Your task to perform on an android device: change your default location settings in chrome Image 0: 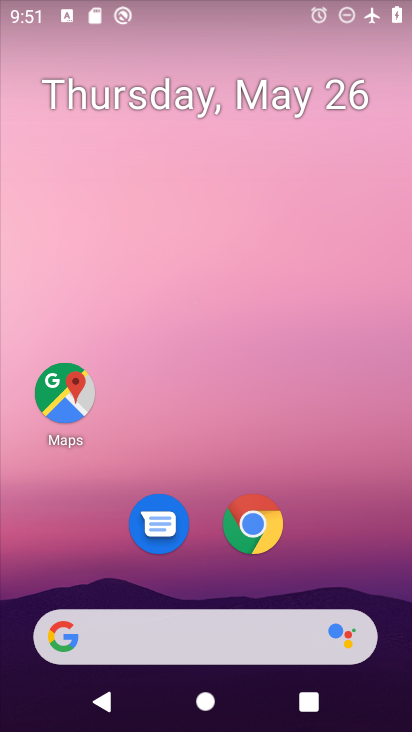
Step 0: click (256, 525)
Your task to perform on an android device: change your default location settings in chrome Image 1: 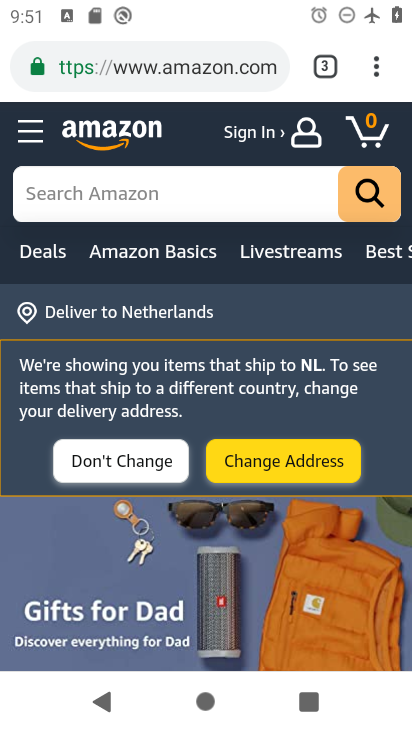
Step 1: click (376, 59)
Your task to perform on an android device: change your default location settings in chrome Image 2: 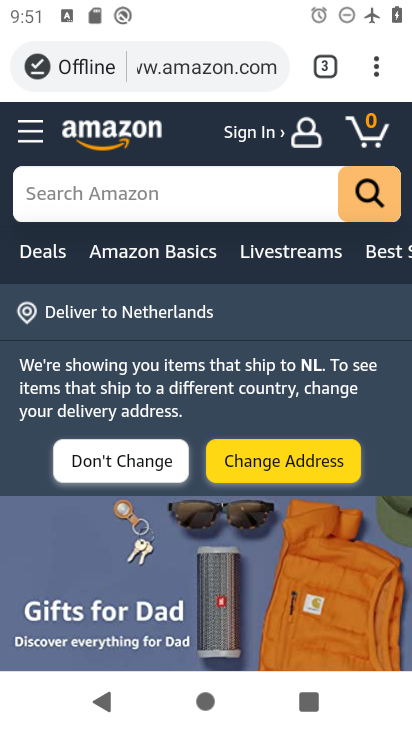
Step 2: click (374, 62)
Your task to perform on an android device: change your default location settings in chrome Image 3: 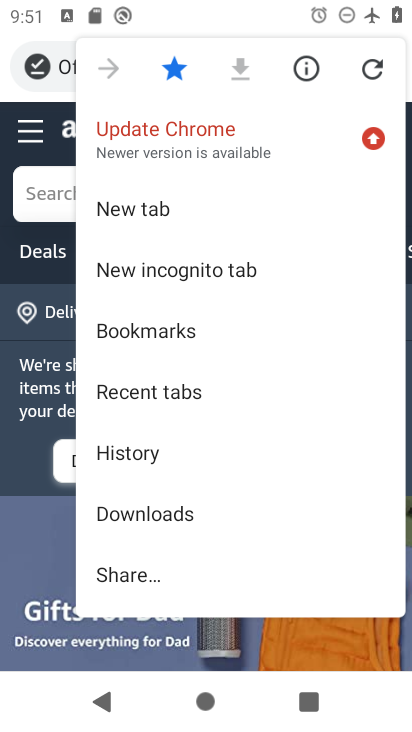
Step 3: drag from (247, 473) to (274, 124)
Your task to perform on an android device: change your default location settings in chrome Image 4: 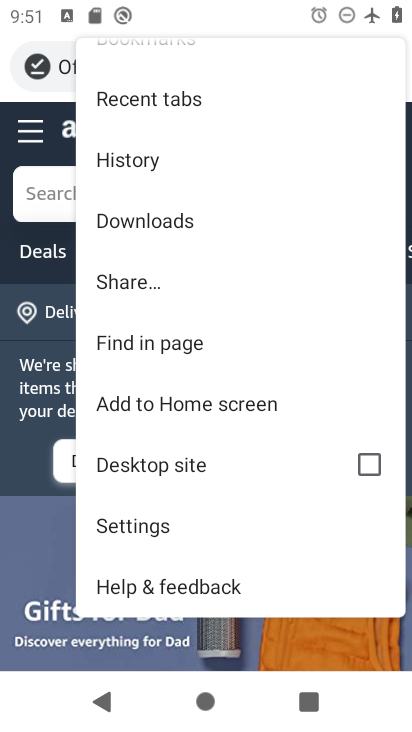
Step 4: click (173, 512)
Your task to perform on an android device: change your default location settings in chrome Image 5: 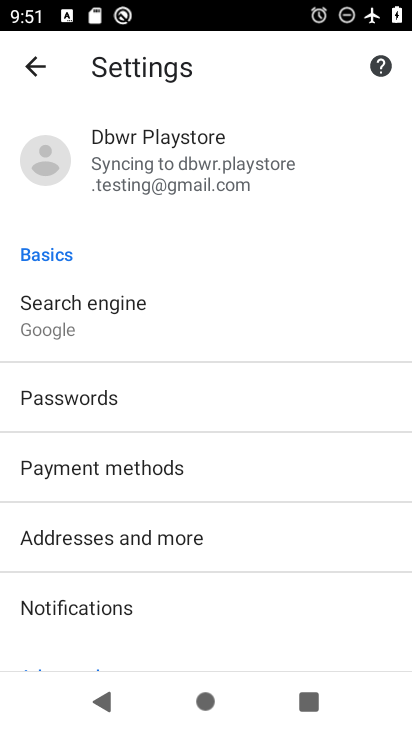
Step 5: drag from (210, 499) to (263, 107)
Your task to perform on an android device: change your default location settings in chrome Image 6: 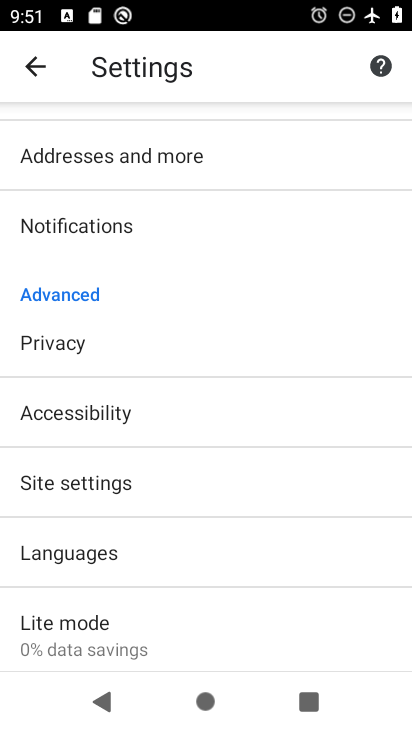
Step 6: click (141, 484)
Your task to perform on an android device: change your default location settings in chrome Image 7: 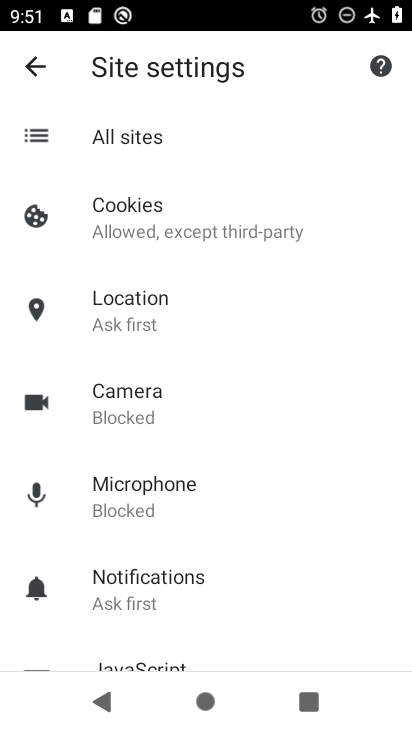
Step 7: click (135, 298)
Your task to perform on an android device: change your default location settings in chrome Image 8: 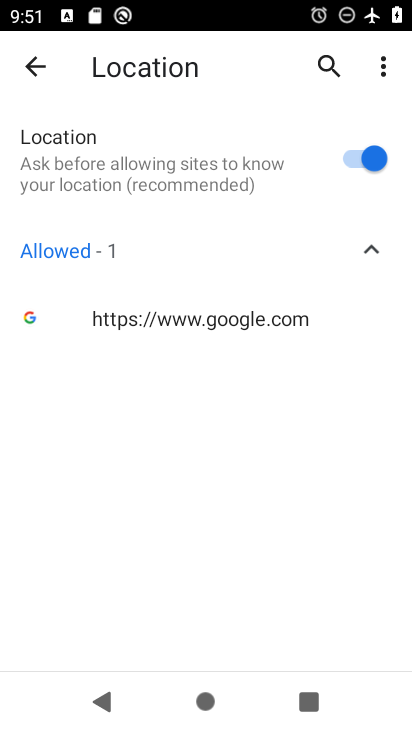
Step 8: click (360, 154)
Your task to perform on an android device: change your default location settings in chrome Image 9: 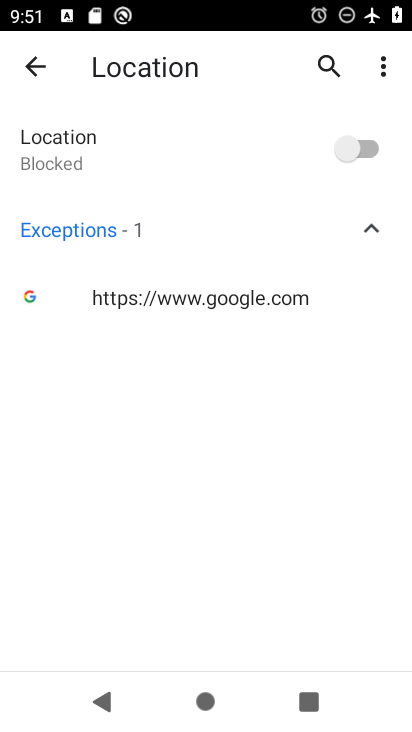
Step 9: task complete